Your task to perform on an android device: turn off picture-in-picture Image 0: 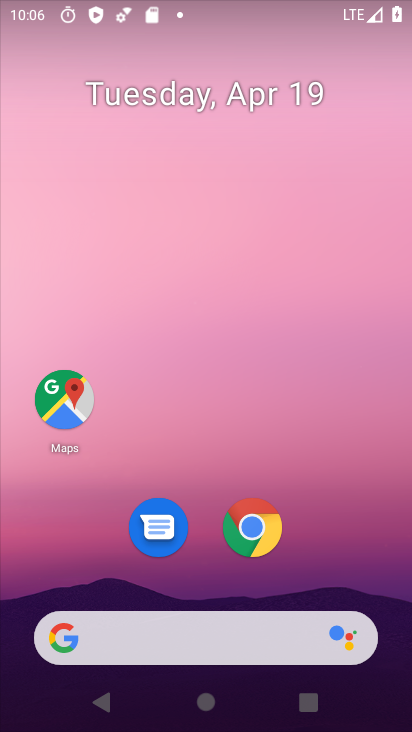
Step 0: drag from (268, 669) to (132, 221)
Your task to perform on an android device: turn off picture-in-picture Image 1: 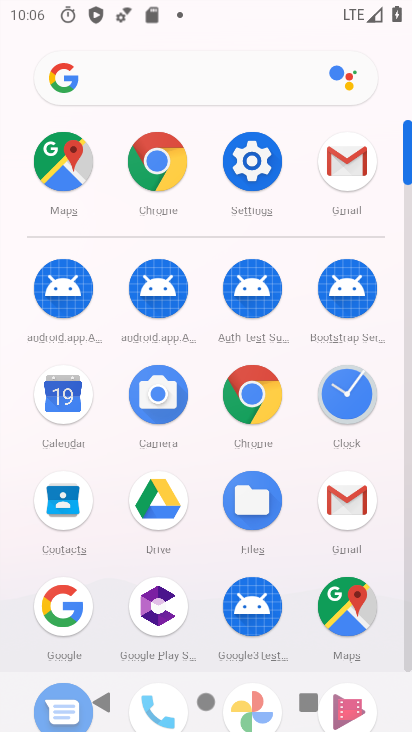
Step 1: click (241, 156)
Your task to perform on an android device: turn off picture-in-picture Image 2: 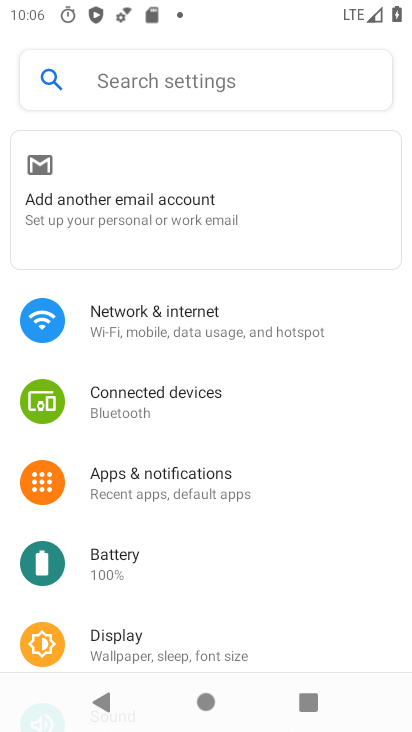
Step 2: click (161, 84)
Your task to perform on an android device: turn off picture-in-picture Image 3: 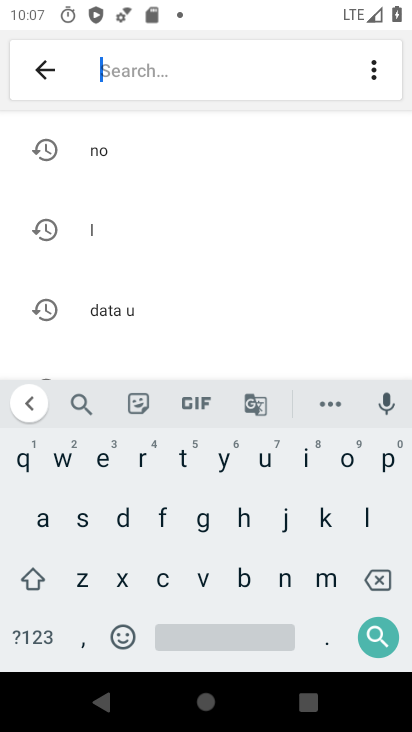
Step 3: click (388, 468)
Your task to perform on an android device: turn off picture-in-picture Image 4: 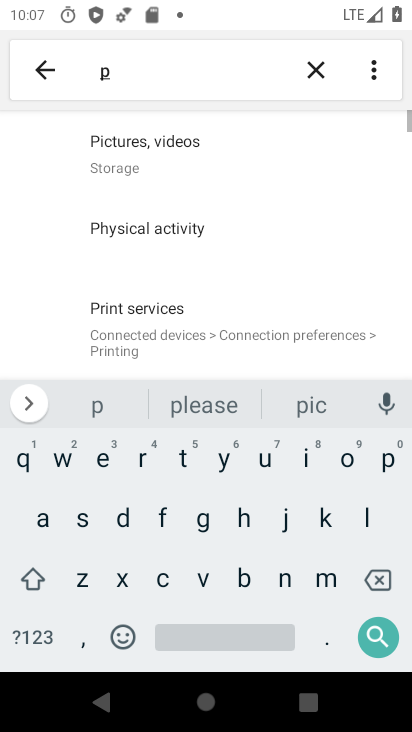
Step 4: click (305, 448)
Your task to perform on an android device: turn off picture-in-picture Image 5: 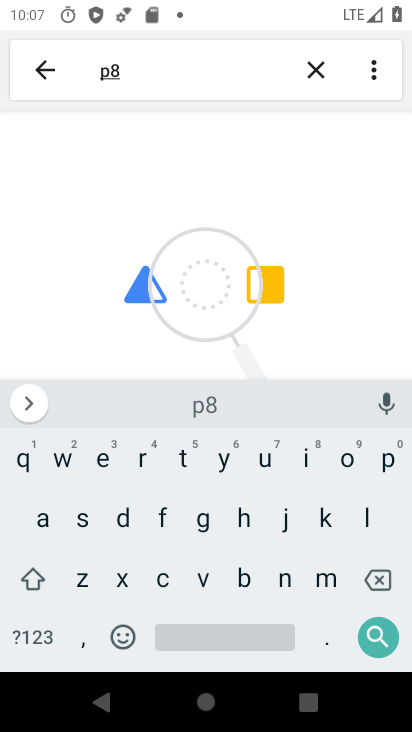
Step 5: click (375, 587)
Your task to perform on an android device: turn off picture-in-picture Image 6: 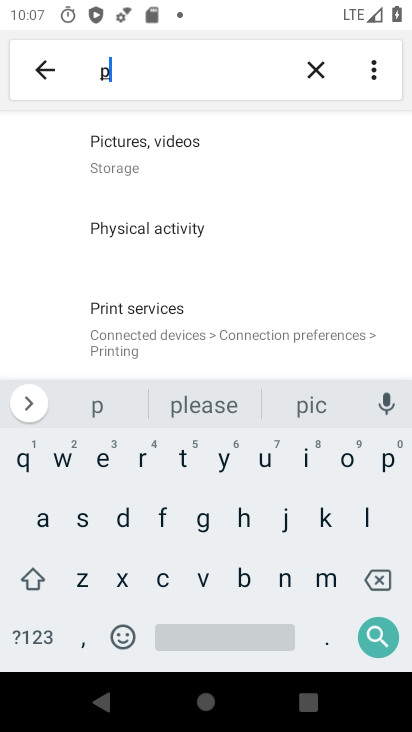
Step 6: click (306, 461)
Your task to perform on an android device: turn off picture-in-picture Image 7: 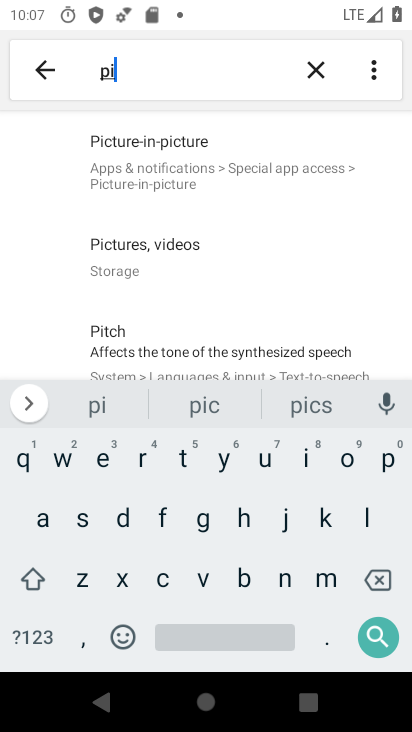
Step 7: click (140, 151)
Your task to perform on an android device: turn off picture-in-picture Image 8: 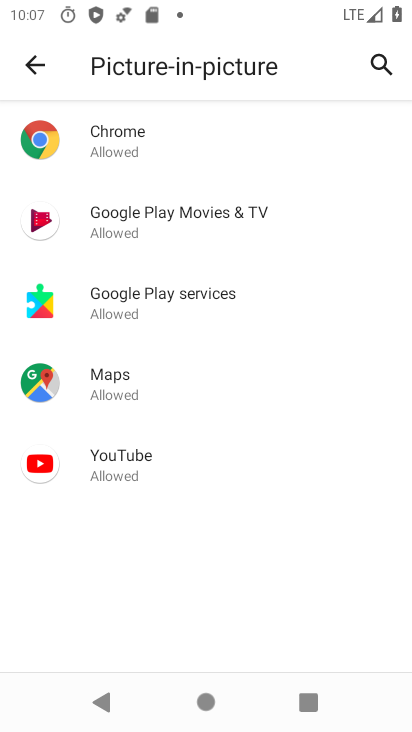
Step 8: task complete